Your task to perform on an android device: refresh tabs in the chrome app Image 0: 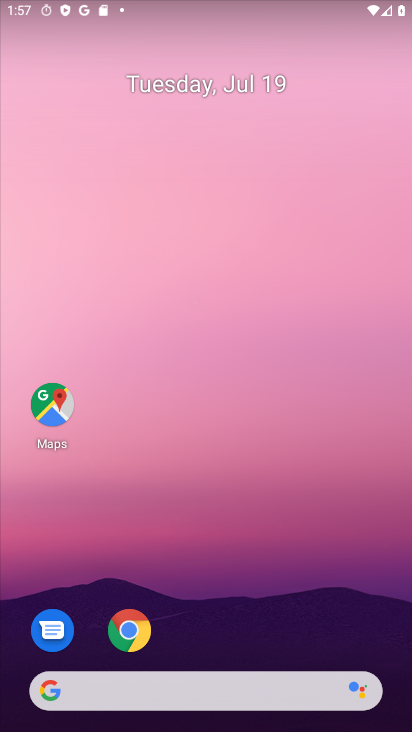
Step 0: click (138, 648)
Your task to perform on an android device: refresh tabs in the chrome app Image 1: 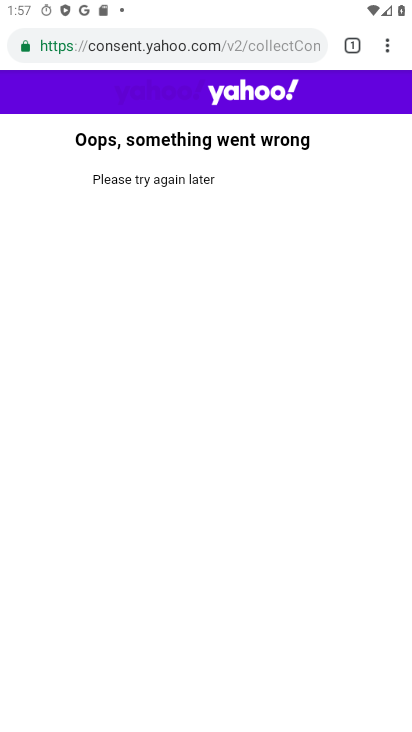
Step 1: click (386, 51)
Your task to perform on an android device: refresh tabs in the chrome app Image 2: 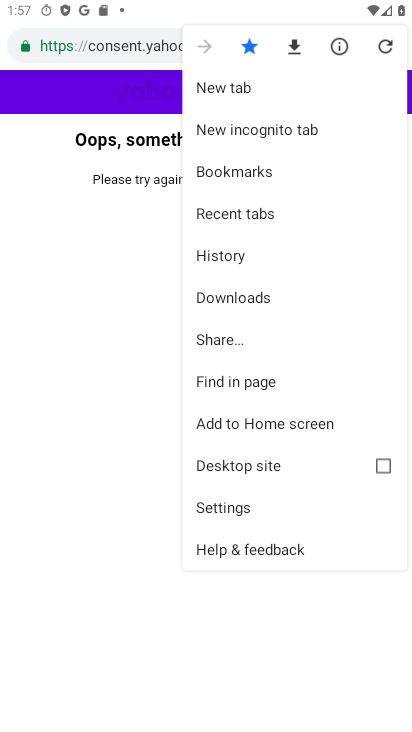
Step 2: click (388, 45)
Your task to perform on an android device: refresh tabs in the chrome app Image 3: 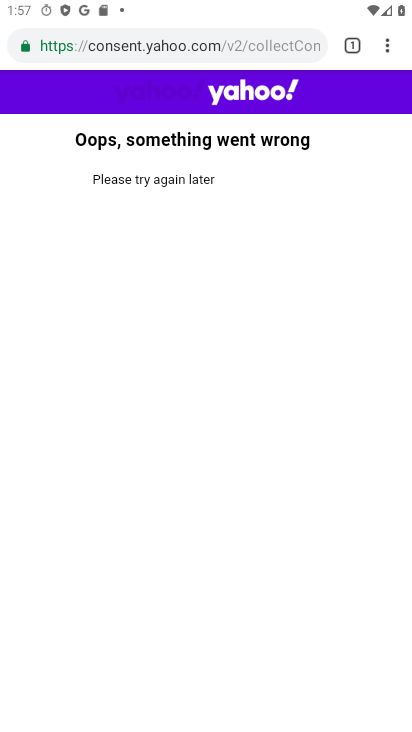
Step 3: task complete